Your task to perform on an android device: Go to Google maps Image 0: 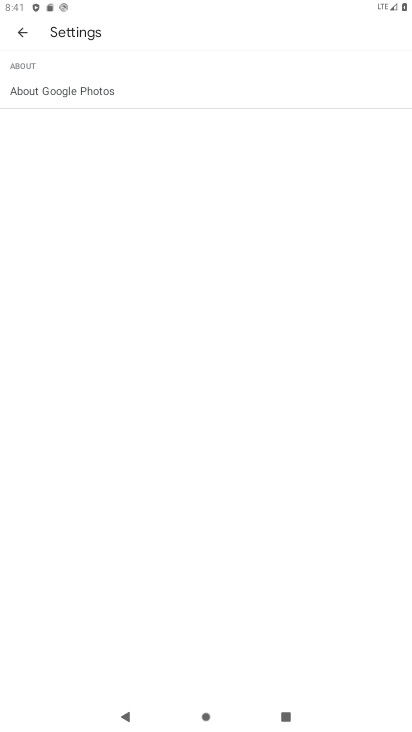
Step 0: press home button
Your task to perform on an android device: Go to Google maps Image 1: 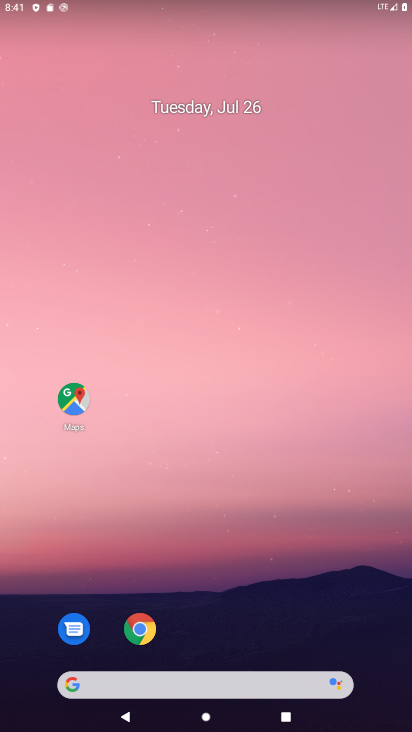
Step 1: click (84, 410)
Your task to perform on an android device: Go to Google maps Image 2: 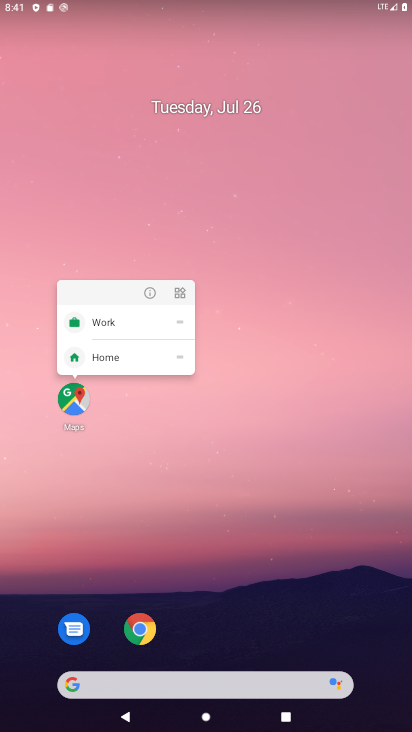
Step 2: click (66, 391)
Your task to perform on an android device: Go to Google maps Image 3: 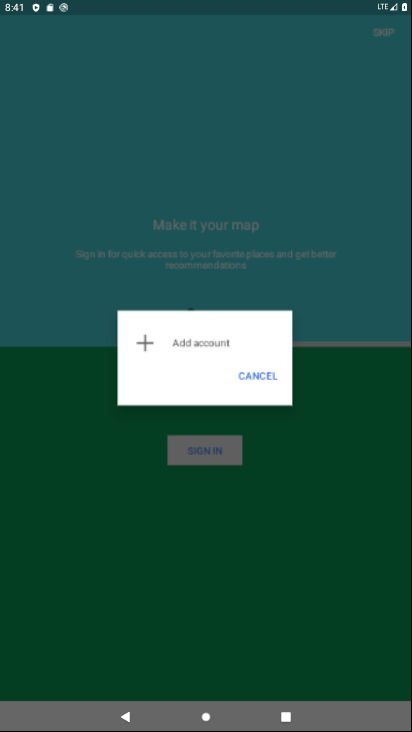
Step 3: click (259, 373)
Your task to perform on an android device: Go to Google maps Image 4: 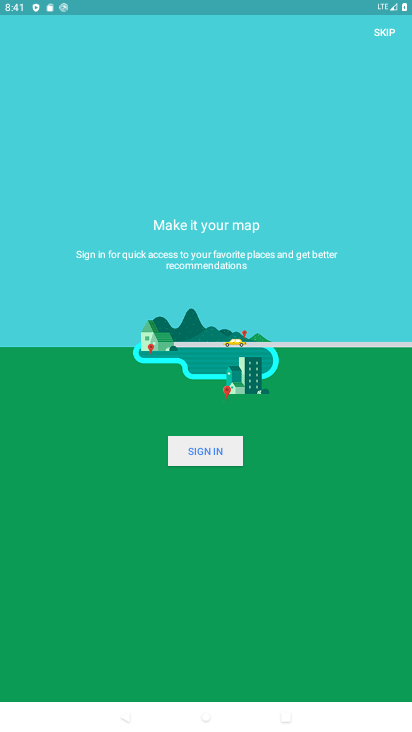
Step 4: click (212, 454)
Your task to perform on an android device: Go to Google maps Image 5: 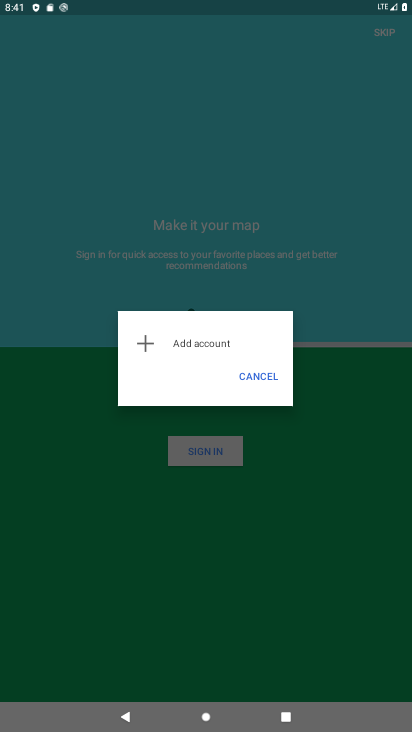
Step 5: task complete